Your task to perform on an android device: What is the news today? Image 0: 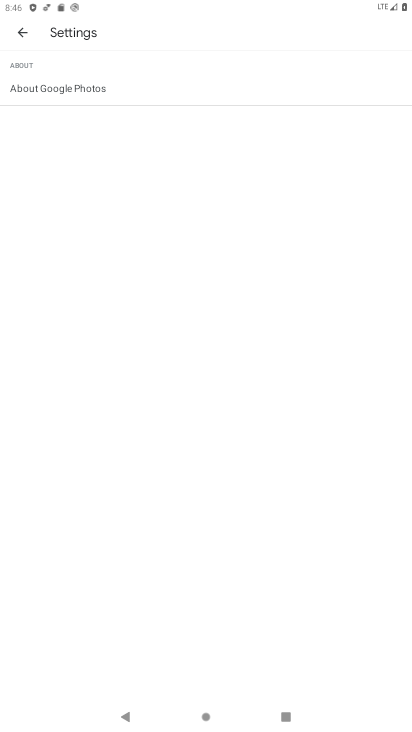
Step 0: press home button
Your task to perform on an android device: What is the news today? Image 1: 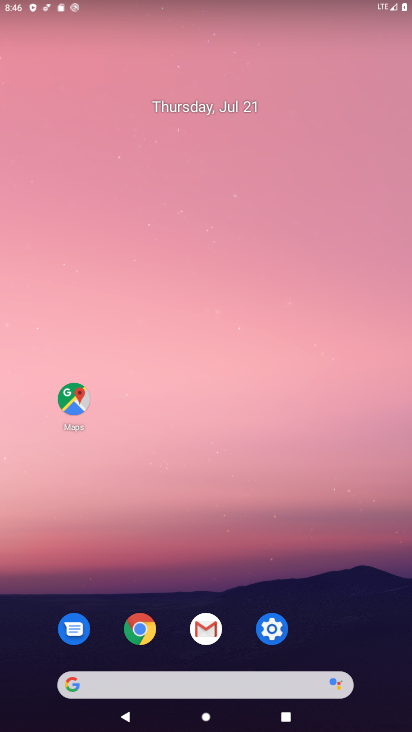
Step 1: click (173, 686)
Your task to perform on an android device: What is the news today? Image 2: 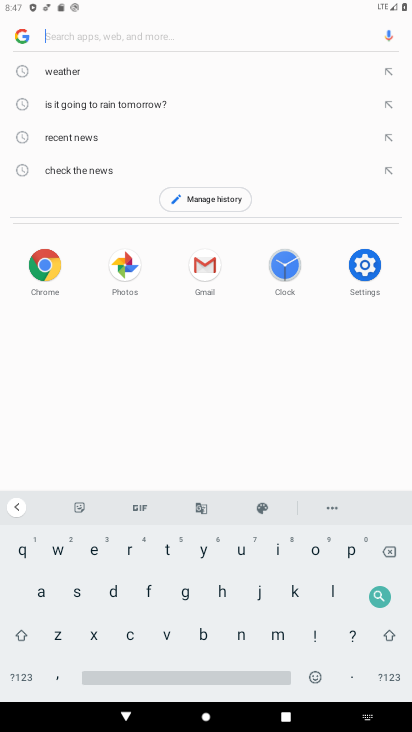
Step 2: click (53, 544)
Your task to perform on an android device: What is the news today? Image 3: 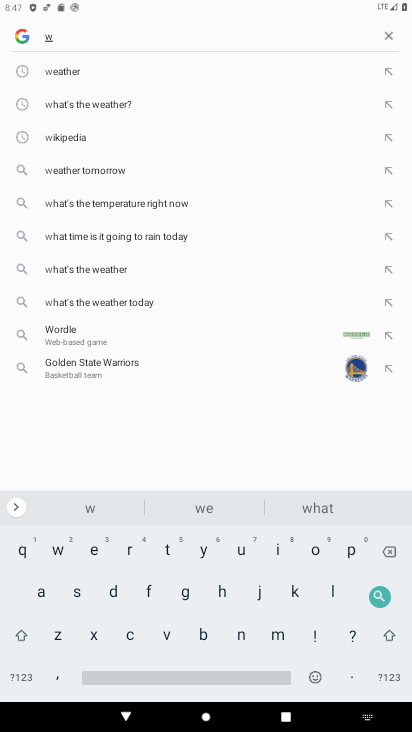
Step 3: click (219, 591)
Your task to perform on an android device: What is the news today? Image 4: 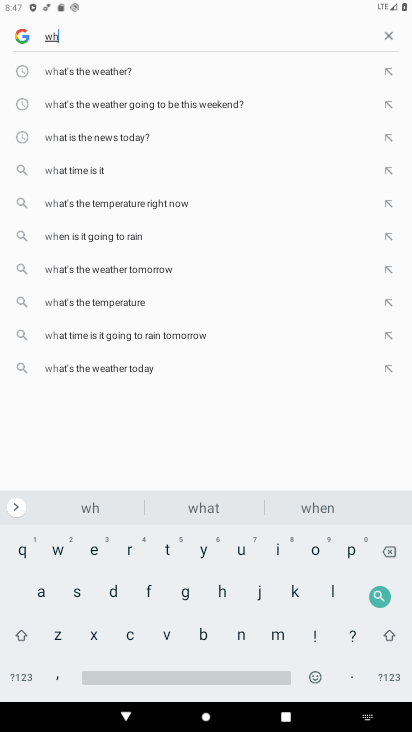
Step 4: click (204, 509)
Your task to perform on an android device: What is the news today? Image 5: 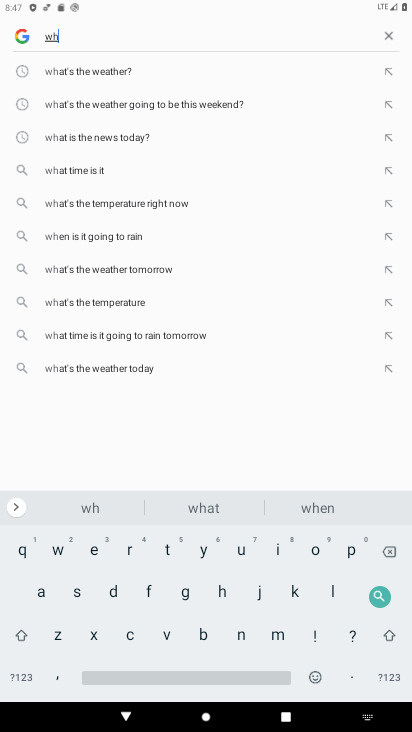
Step 5: click (204, 509)
Your task to perform on an android device: What is the news today? Image 6: 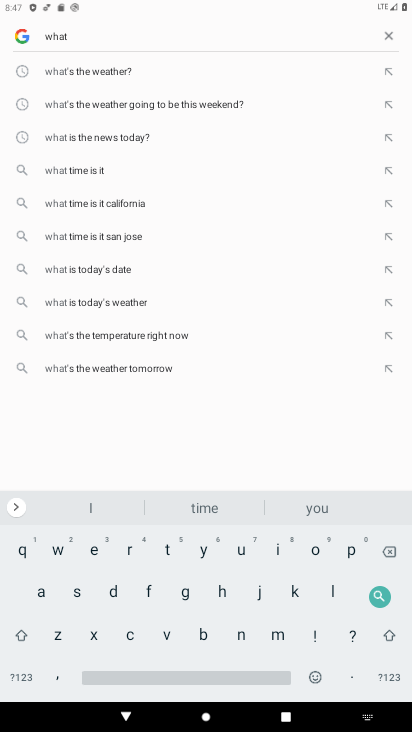
Step 6: click (278, 549)
Your task to perform on an android device: What is the news today? Image 7: 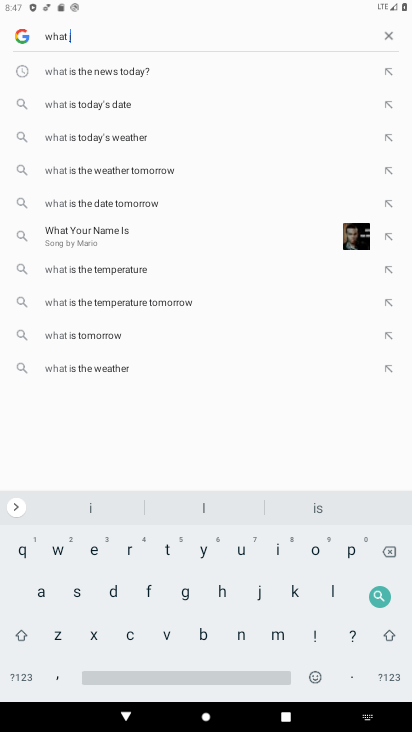
Step 7: click (75, 591)
Your task to perform on an android device: What is the news today? Image 8: 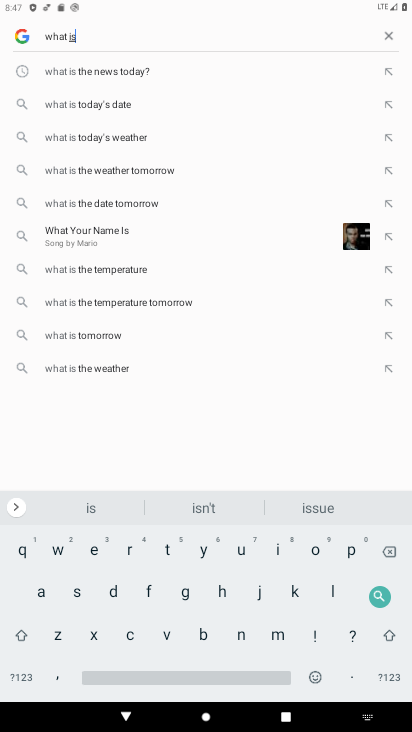
Step 8: click (104, 72)
Your task to perform on an android device: What is the news today? Image 9: 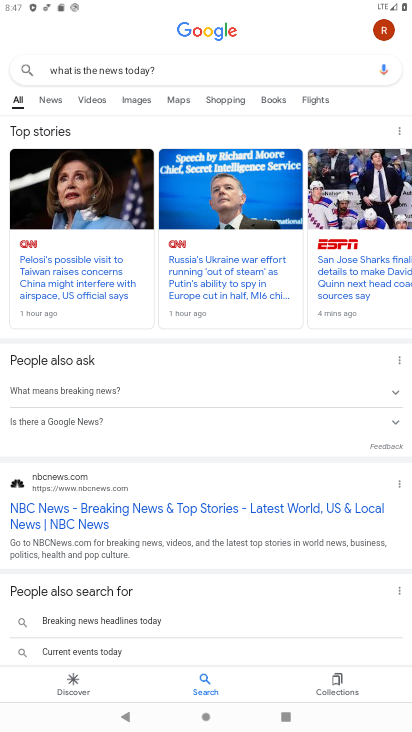
Step 9: task complete